Your task to perform on an android device: Go to wifi settings Image 0: 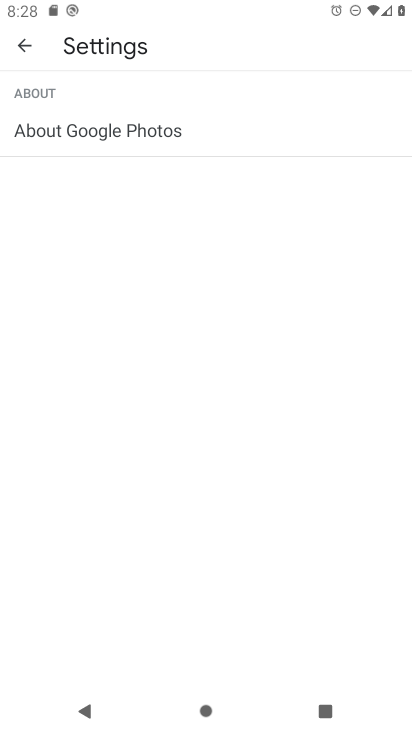
Step 0: press home button
Your task to perform on an android device: Go to wifi settings Image 1: 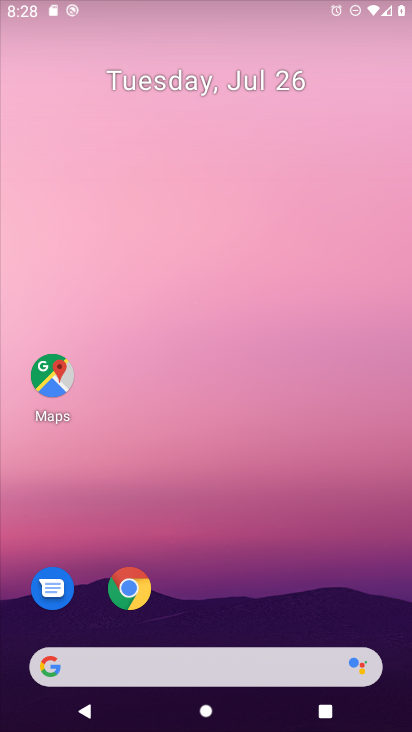
Step 1: drag from (230, 642) to (236, 144)
Your task to perform on an android device: Go to wifi settings Image 2: 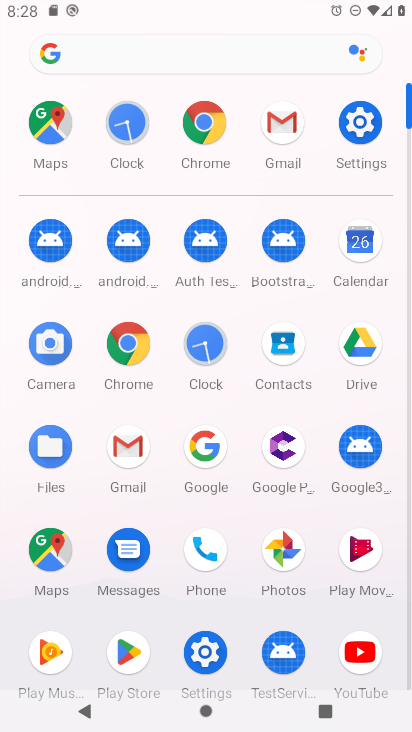
Step 2: click (359, 137)
Your task to perform on an android device: Go to wifi settings Image 3: 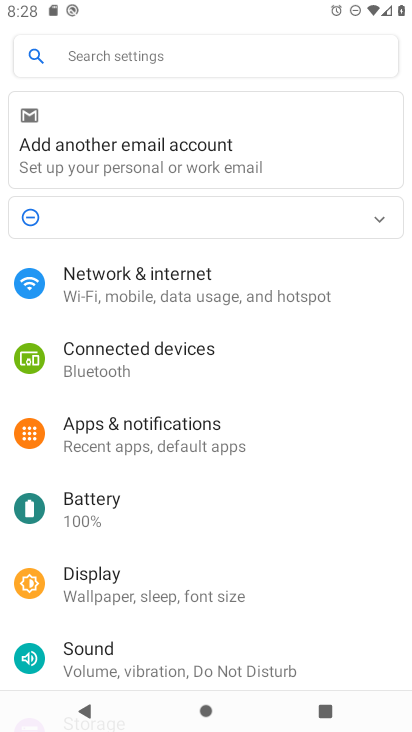
Step 3: click (143, 293)
Your task to perform on an android device: Go to wifi settings Image 4: 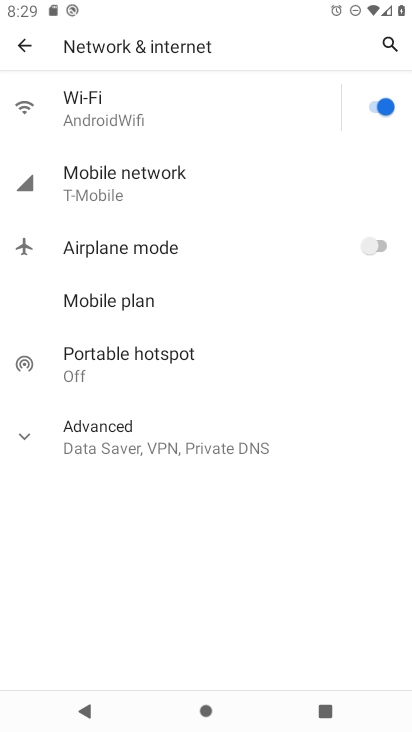
Step 4: click (143, 117)
Your task to perform on an android device: Go to wifi settings Image 5: 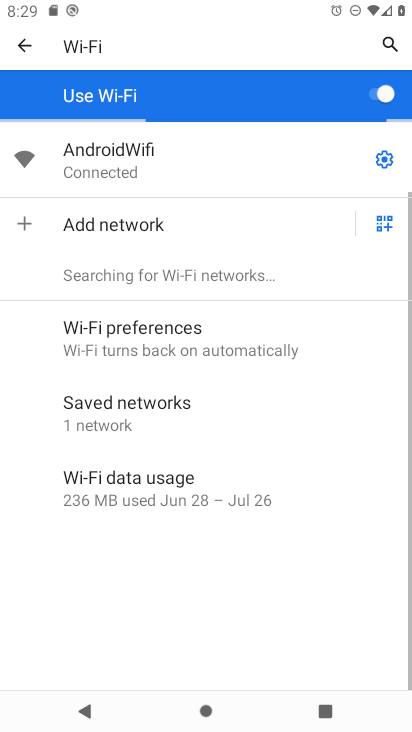
Step 5: task complete